Your task to perform on an android device: turn off airplane mode Image 0: 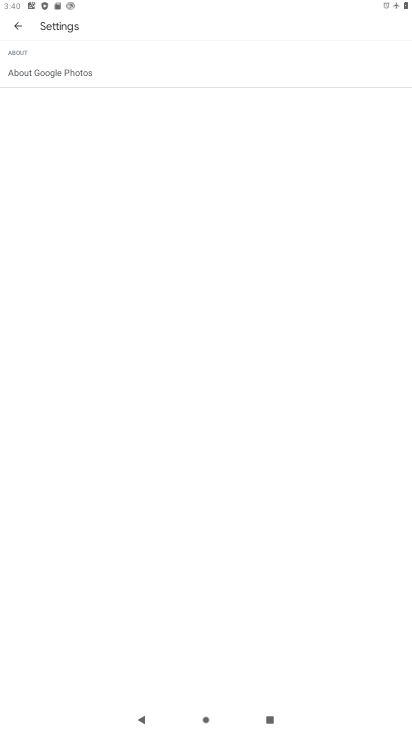
Step 0: press home button
Your task to perform on an android device: turn off airplane mode Image 1: 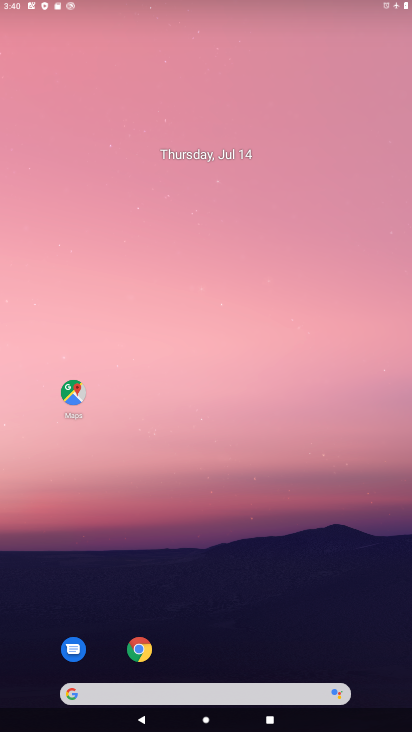
Step 1: drag from (201, 625) to (259, 0)
Your task to perform on an android device: turn off airplane mode Image 2: 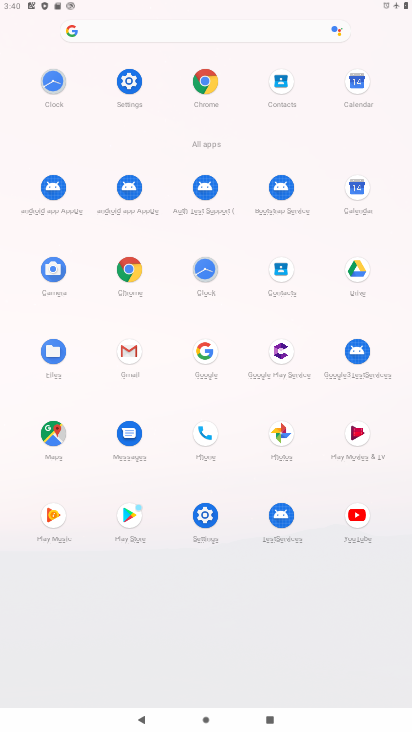
Step 2: click (210, 532)
Your task to perform on an android device: turn off airplane mode Image 3: 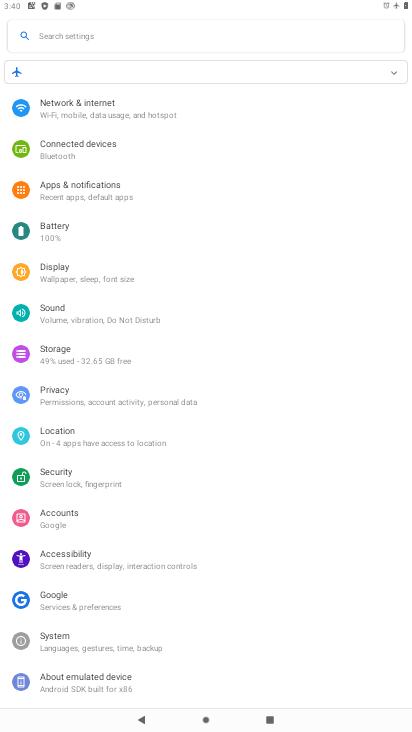
Step 3: click (123, 122)
Your task to perform on an android device: turn off airplane mode Image 4: 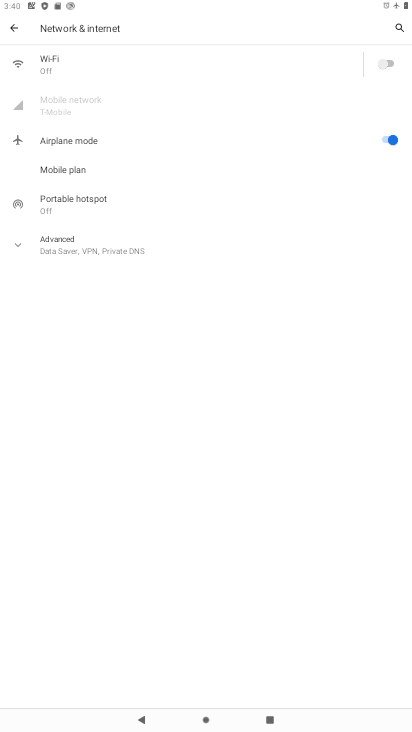
Step 4: click (376, 136)
Your task to perform on an android device: turn off airplane mode Image 5: 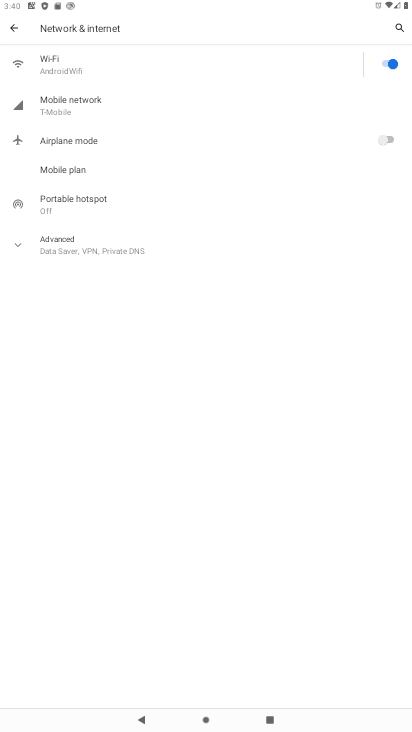
Step 5: task complete